Your task to perform on an android device: Set the phone to "Do not disturb". Image 0: 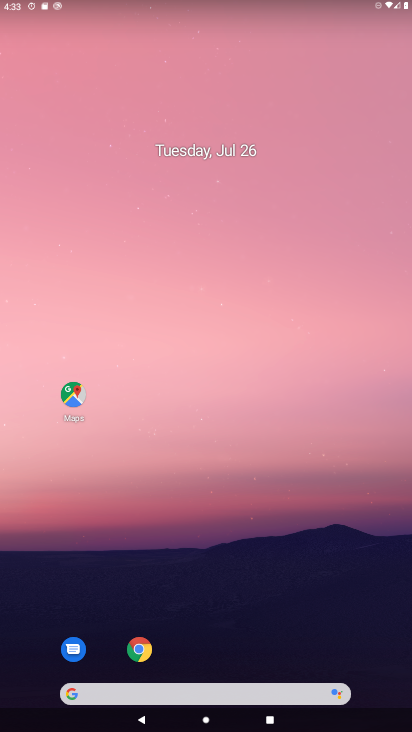
Step 0: drag from (394, 659) to (360, 573)
Your task to perform on an android device: Set the phone to "Do not disturb". Image 1: 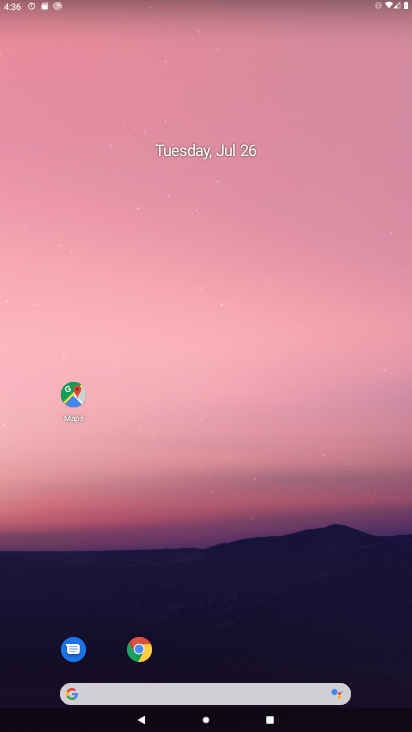
Step 1: task complete